Your task to perform on an android device: turn off data saver in the chrome app Image 0: 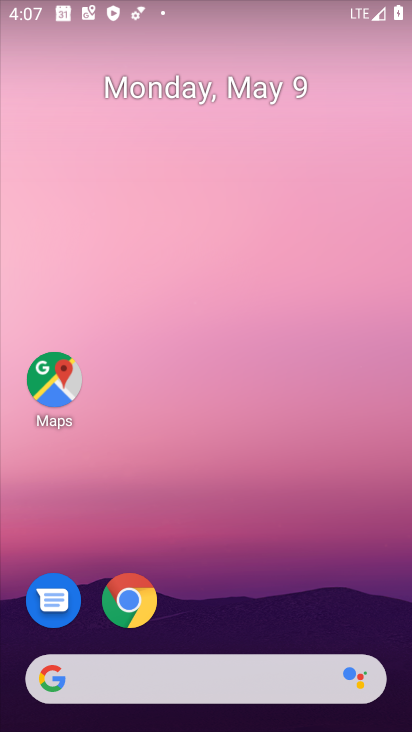
Step 0: drag from (257, 688) to (400, 66)
Your task to perform on an android device: turn off data saver in the chrome app Image 1: 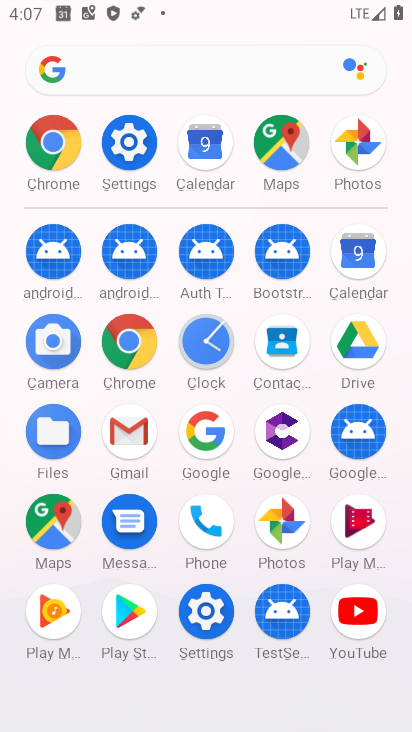
Step 1: click (127, 356)
Your task to perform on an android device: turn off data saver in the chrome app Image 2: 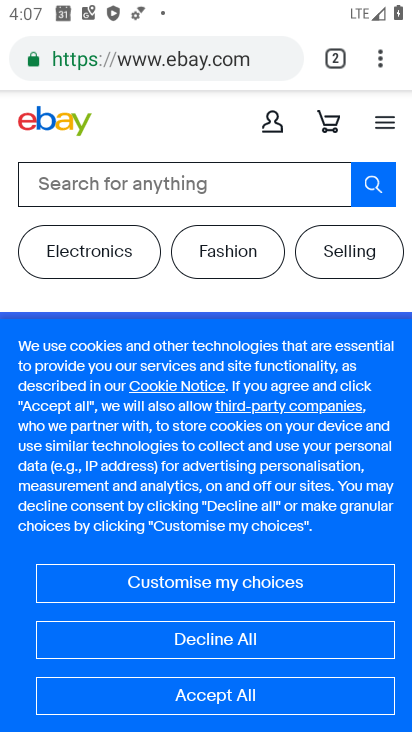
Step 2: drag from (354, 143) to (333, 576)
Your task to perform on an android device: turn off data saver in the chrome app Image 3: 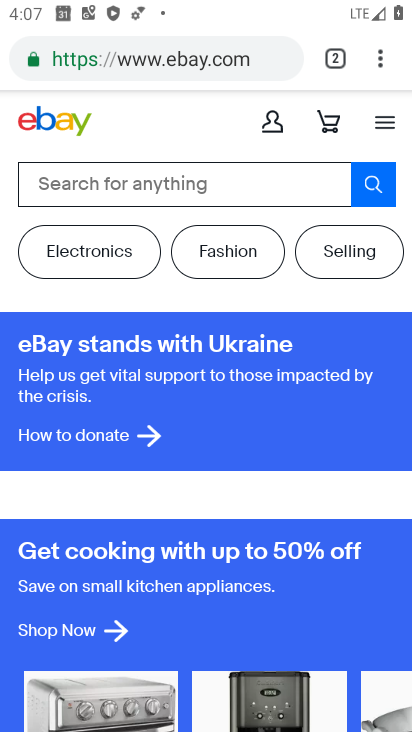
Step 3: drag from (385, 61) to (261, 633)
Your task to perform on an android device: turn off data saver in the chrome app Image 4: 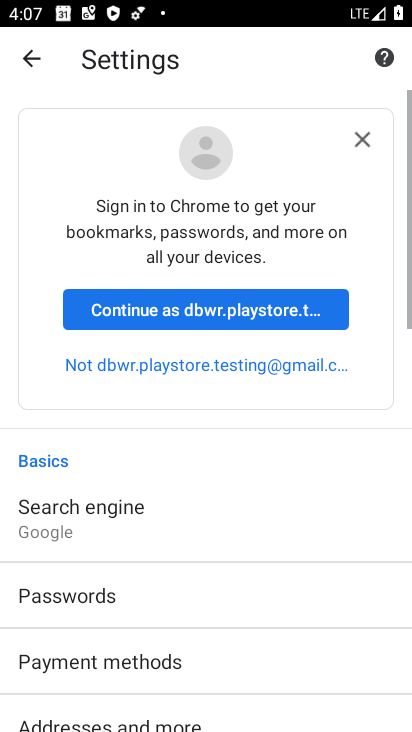
Step 4: drag from (277, 565) to (303, 59)
Your task to perform on an android device: turn off data saver in the chrome app Image 5: 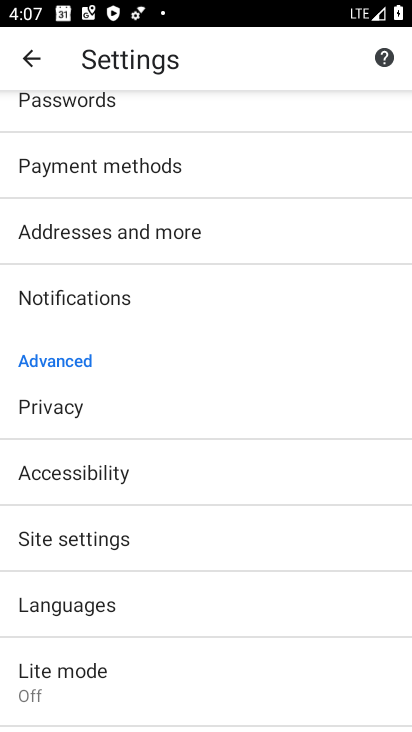
Step 5: click (148, 678)
Your task to perform on an android device: turn off data saver in the chrome app Image 6: 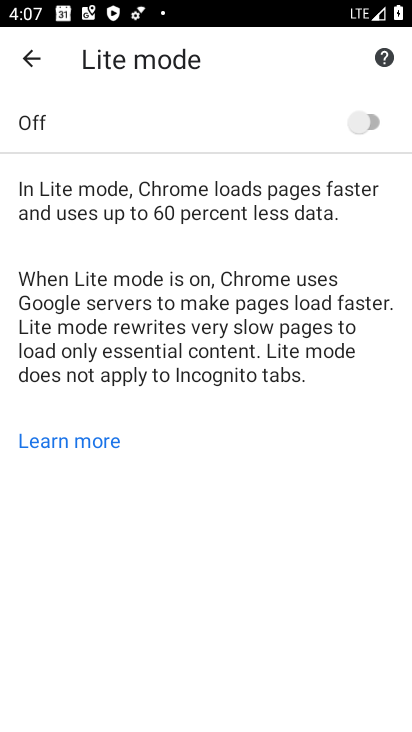
Step 6: task complete